Your task to perform on an android device: Set the phone to "Do not disturb". Image 0: 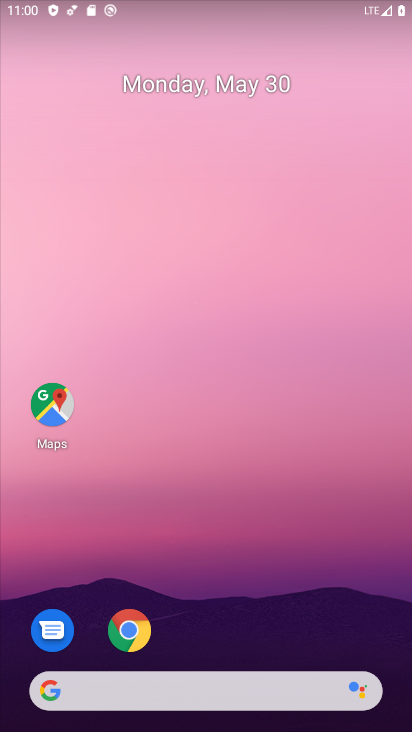
Step 0: drag from (174, 593) to (231, 255)
Your task to perform on an android device: Set the phone to "Do not disturb". Image 1: 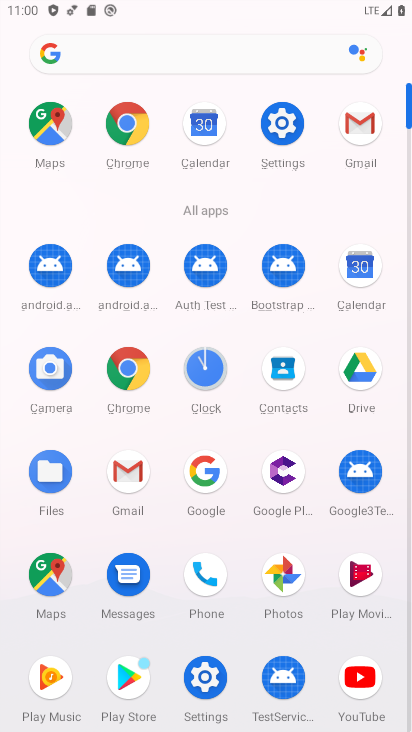
Step 1: drag from (252, 3) to (237, 388)
Your task to perform on an android device: Set the phone to "Do not disturb". Image 2: 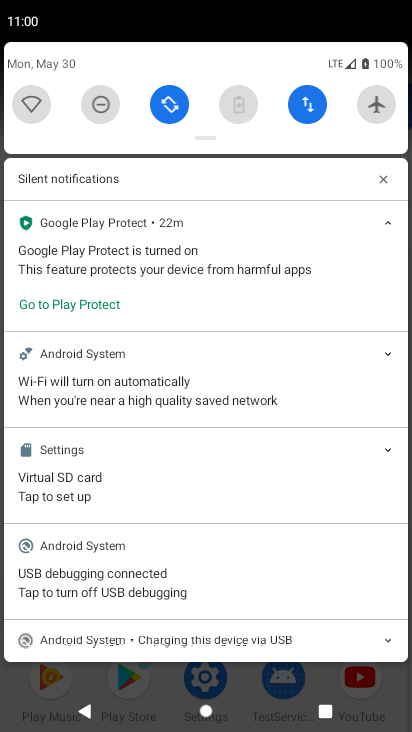
Step 2: click (109, 103)
Your task to perform on an android device: Set the phone to "Do not disturb". Image 3: 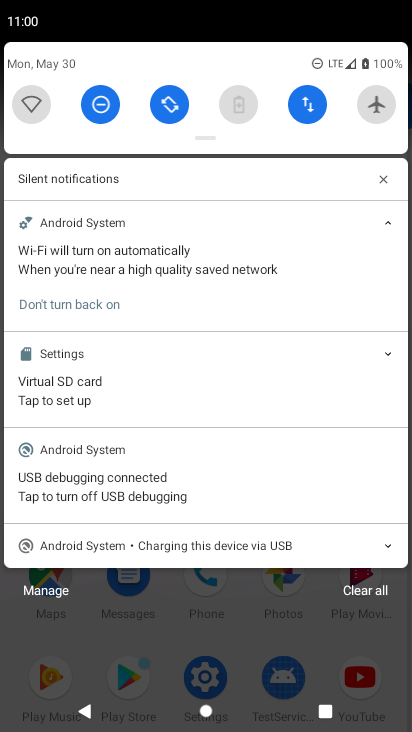
Step 3: task complete